Your task to perform on an android device: Open location settings Image 0: 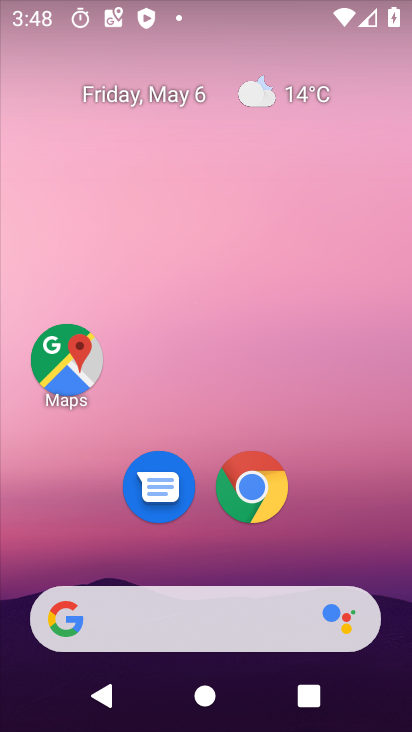
Step 0: drag from (349, 522) to (227, 7)
Your task to perform on an android device: Open location settings Image 1: 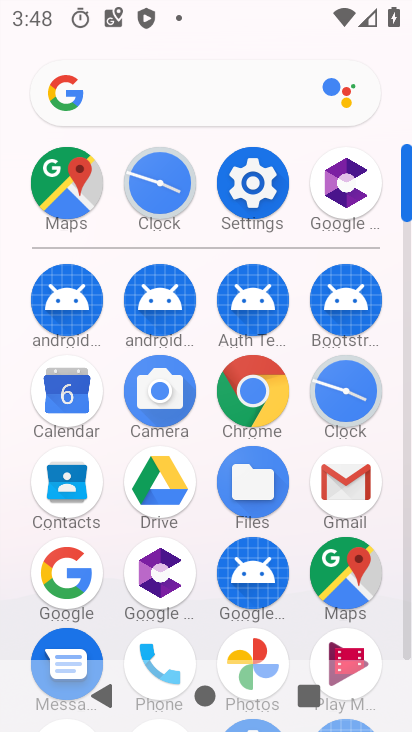
Step 1: click (252, 197)
Your task to perform on an android device: Open location settings Image 2: 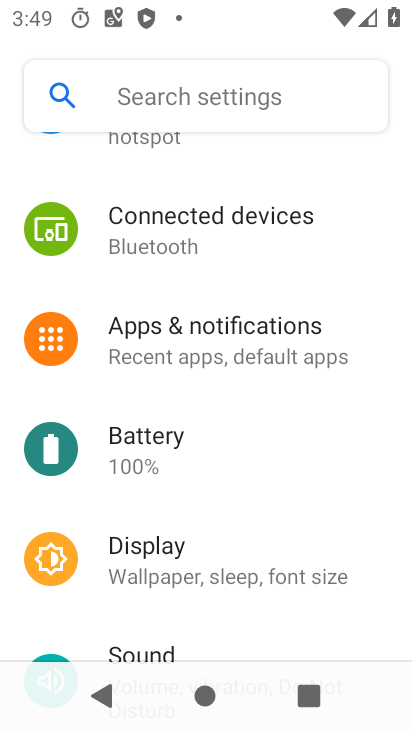
Step 2: drag from (222, 514) to (193, 310)
Your task to perform on an android device: Open location settings Image 3: 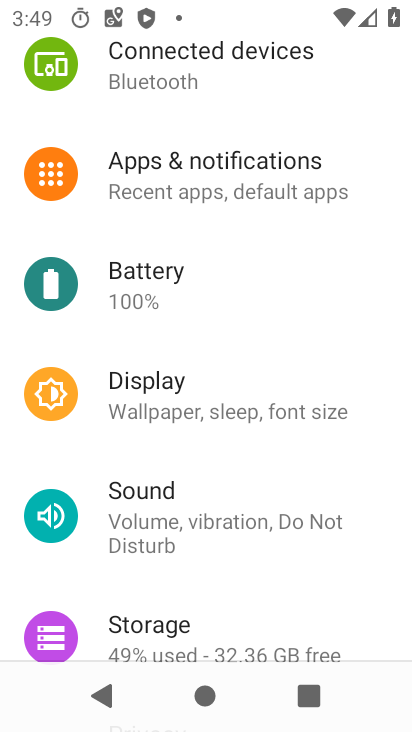
Step 3: drag from (229, 573) to (203, 292)
Your task to perform on an android device: Open location settings Image 4: 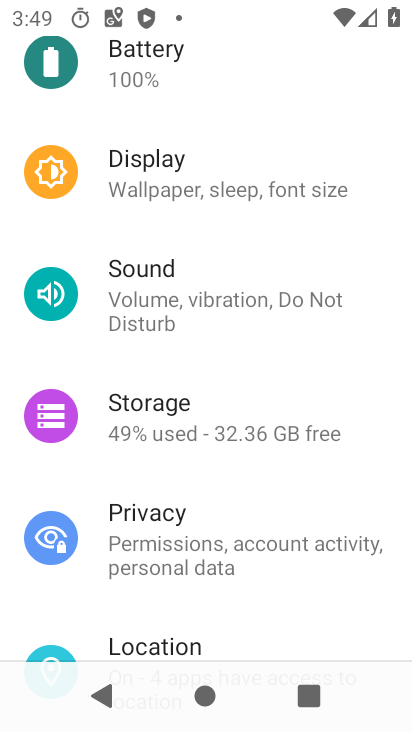
Step 4: drag from (189, 563) to (166, 290)
Your task to perform on an android device: Open location settings Image 5: 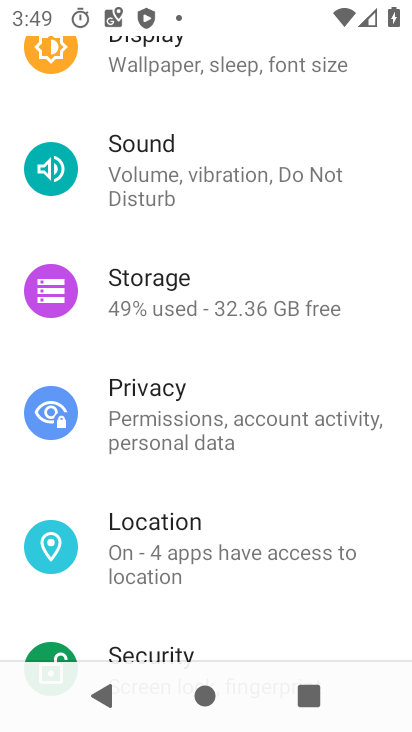
Step 5: click (142, 577)
Your task to perform on an android device: Open location settings Image 6: 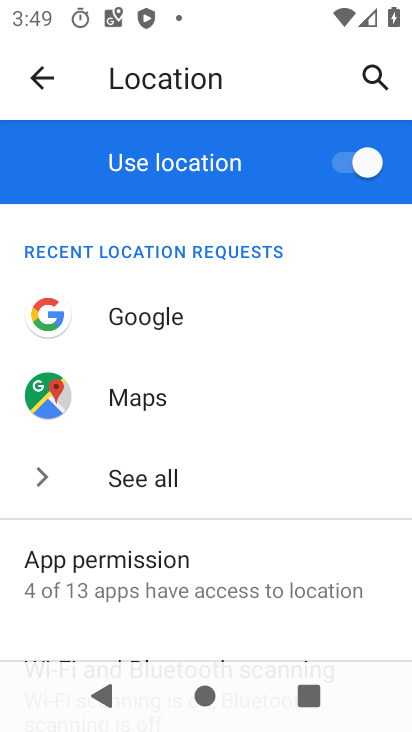
Step 6: task complete